Your task to perform on an android device: Open settings on Google Maps Image 0: 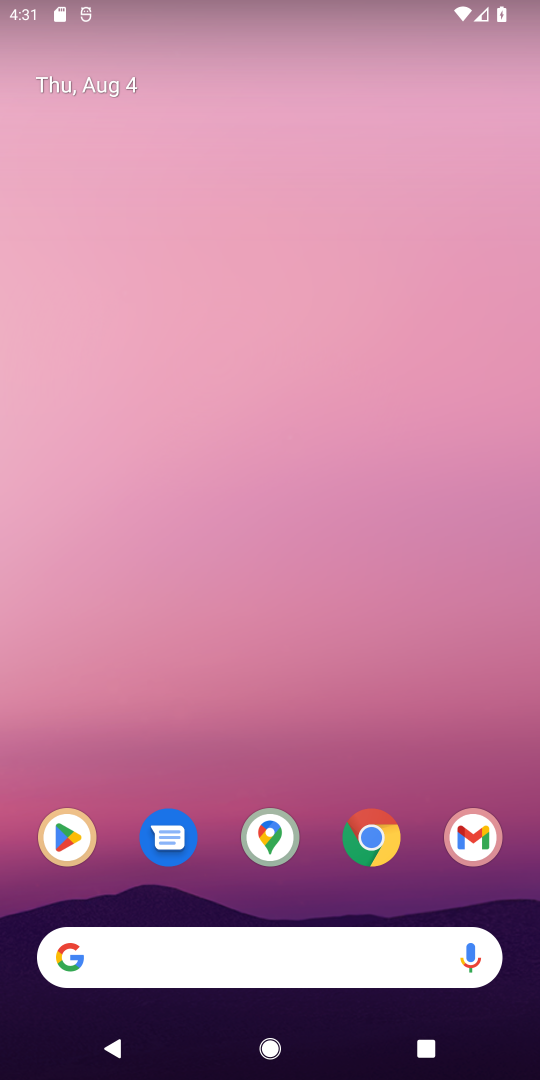
Step 0: click (279, 842)
Your task to perform on an android device: Open settings on Google Maps Image 1: 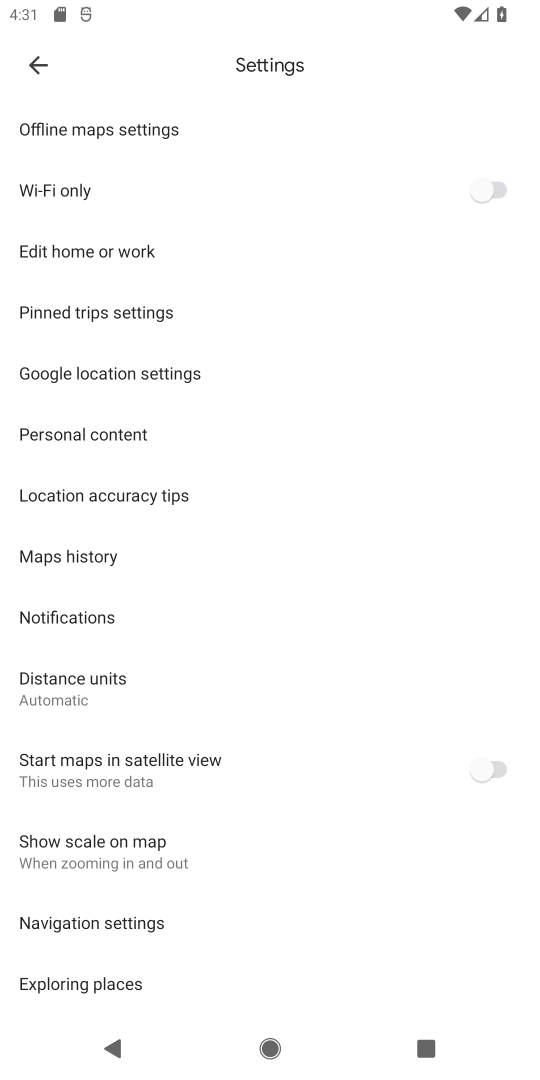
Step 1: task complete